Your task to perform on an android device: toggle pop-ups in chrome Image 0: 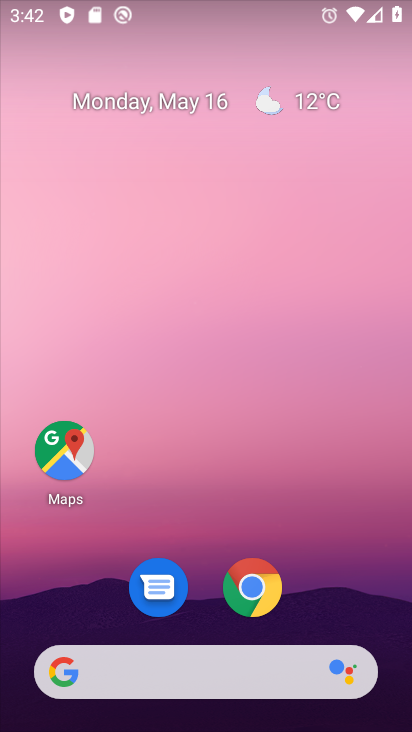
Step 0: click (250, 587)
Your task to perform on an android device: toggle pop-ups in chrome Image 1: 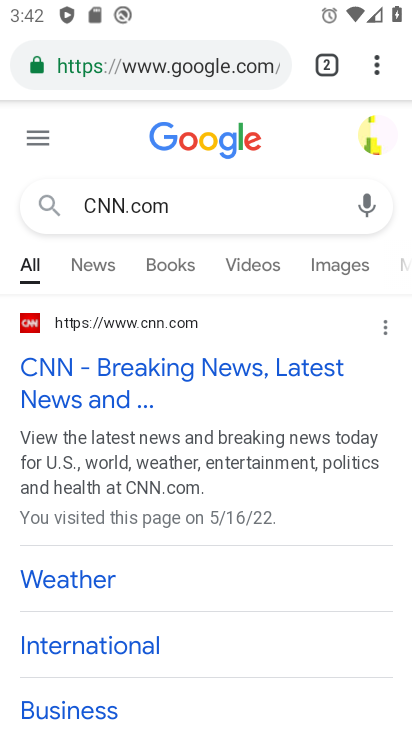
Step 1: click (378, 64)
Your task to perform on an android device: toggle pop-ups in chrome Image 2: 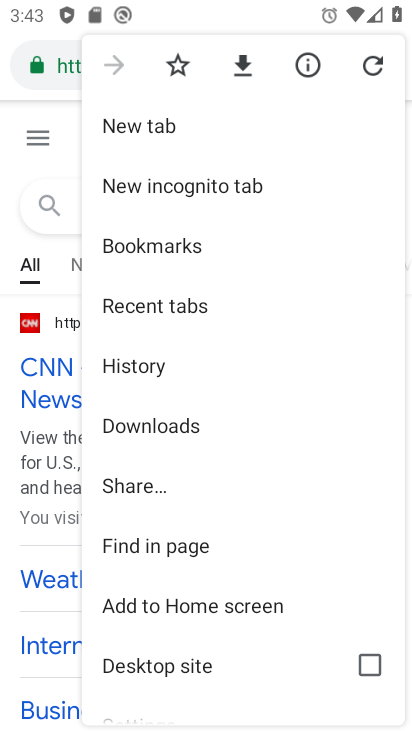
Step 2: drag from (299, 579) to (271, 269)
Your task to perform on an android device: toggle pop-ups in chrome Image 3: 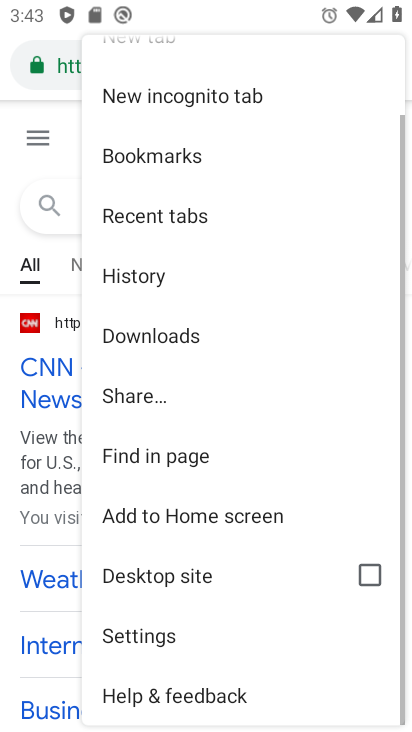
Step 3: click (130, 632)
Your task to perform on an android device: toggle pop-ups in chrome Image 4: 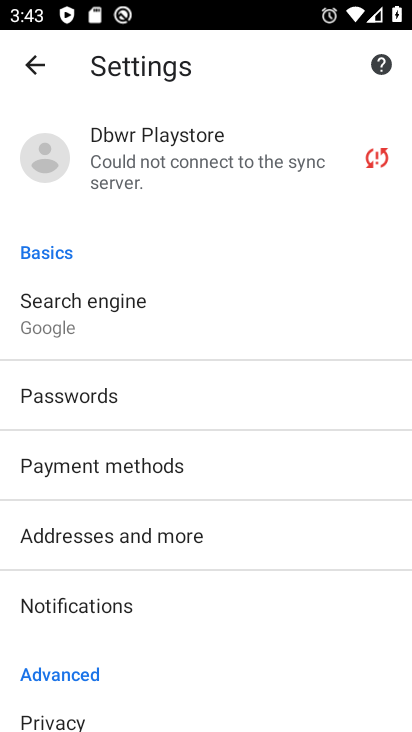
Step 4: drag from (250, 632) to (269, 381)
Your task to perform on an android device: toggle pop-ups in chrome Image 5: 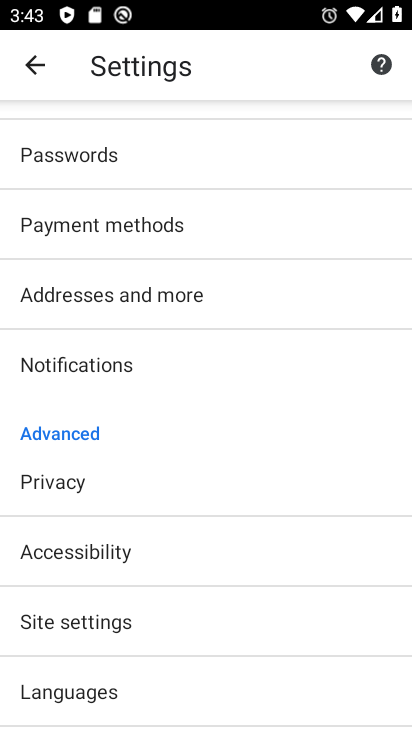
Step 5: drag from (223, 615) to (218, 396)
Your task to perform on an android device: toggle pop-ups in chrome Image 6: 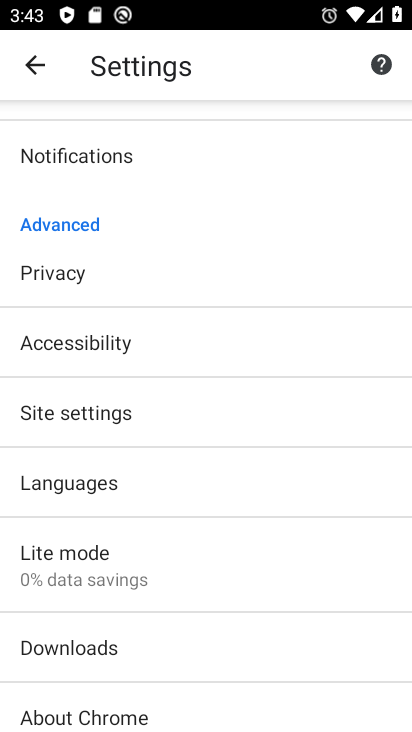
Step 6: drag from (177, 663) to (192, 420)
Your task to perform on an android device: toggle pop-ups in chrome Image 7: 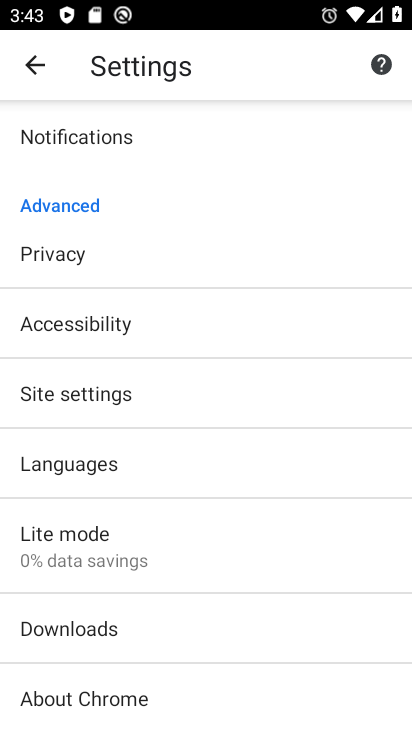
Step 7: click (51, 404)
Your task to perform on an android device: toggle pop-ups in chrome Image 8: 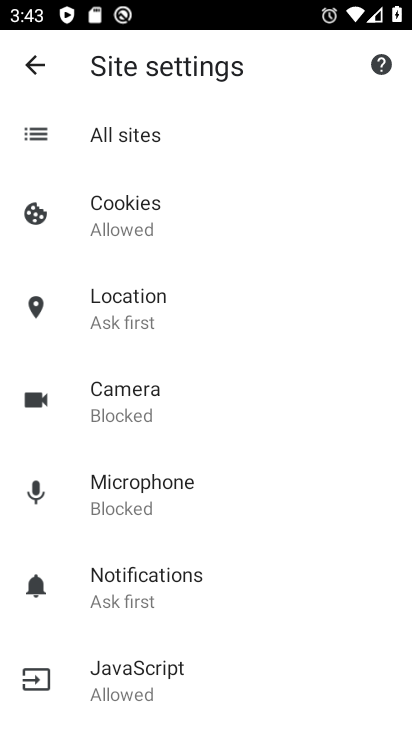
Step 8: drag from (220, 459) to (218, 409)
Your task to perform on an android device: toggle pop-ups in chrome Image 9: 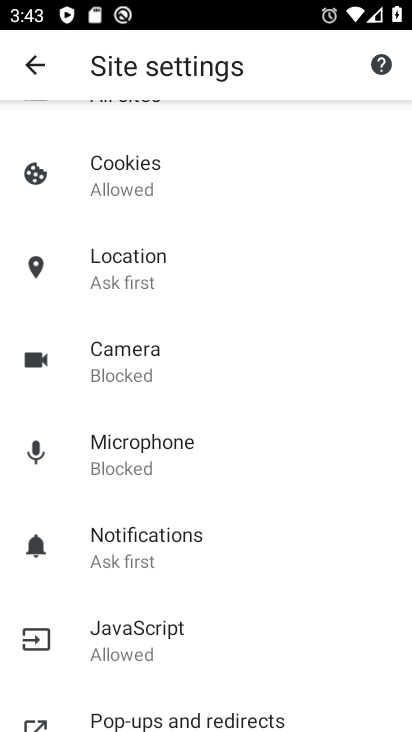
Step 9: click (170, 711)
Your task to perform on an android device: toggle pop-ups in chrome Image 10: 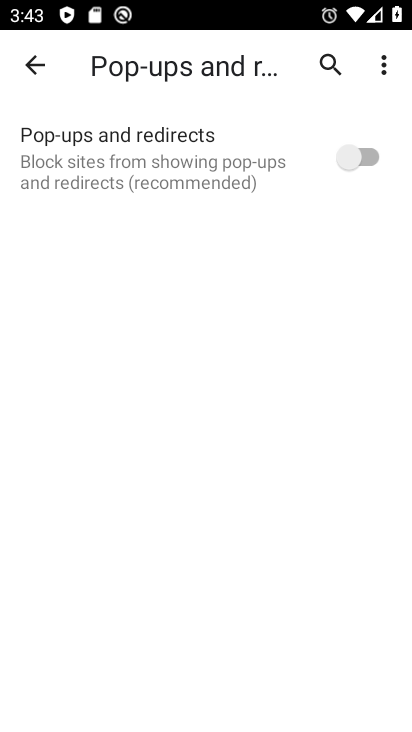
Step 10: click (374, 156)
Your task to perform on an android device: toggle pop-ups in chrome Image 11: 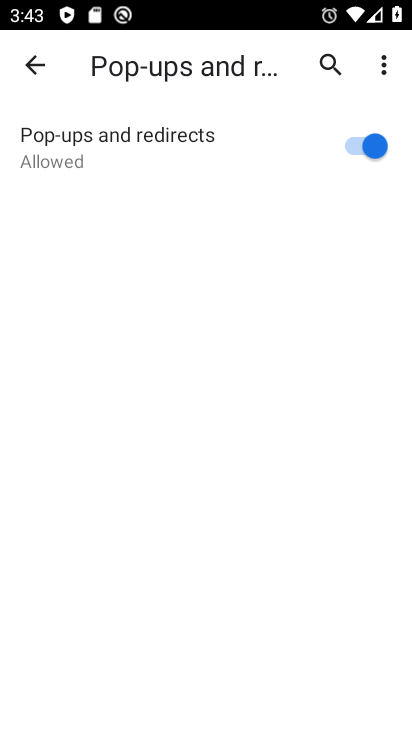
Step 11: task complete